Your task to perform on an android device: refresh tabs in the chrome app Image 0: 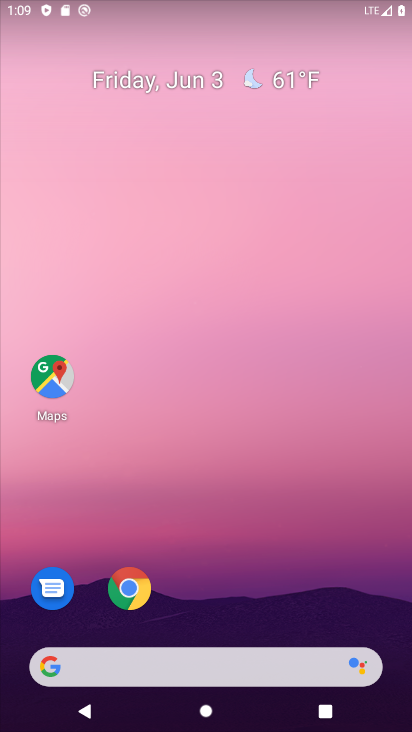
Step 0: click (318, 133)
Your task to perform on an android device: refresh tabs in the chrome app Image 1: 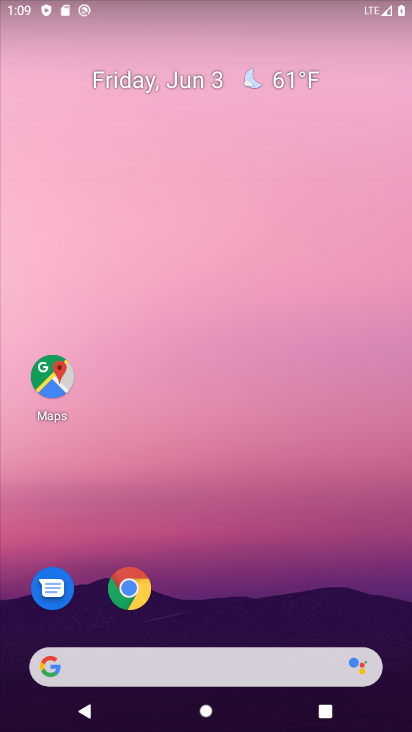
Step 1: drag from (241, 160) to (241, 105)
Your task to perform on an android device: refresh tabs in the chrome app Image 2: 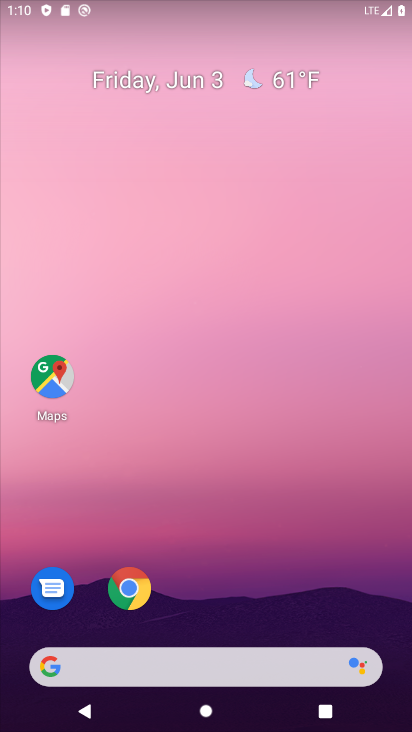
Step 2: drag from (198, 614) to (284, 115)
Your task to perform on an android device: refresh tabs in the chrome app Image 3: 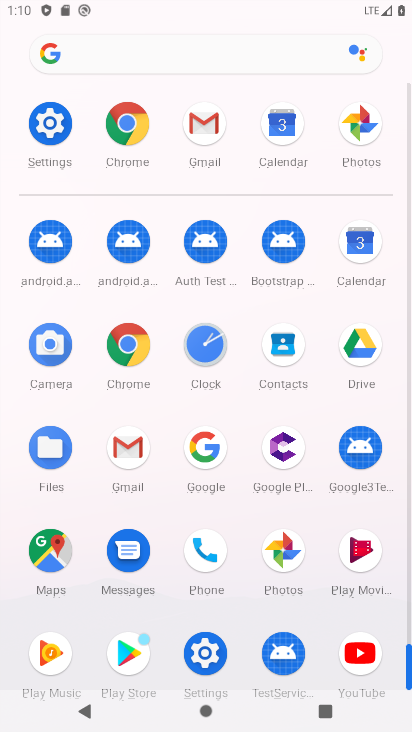
Step 3: click (136, 355)
Your task to perform on an android device: refresh tabs in the chrome app Image 4: 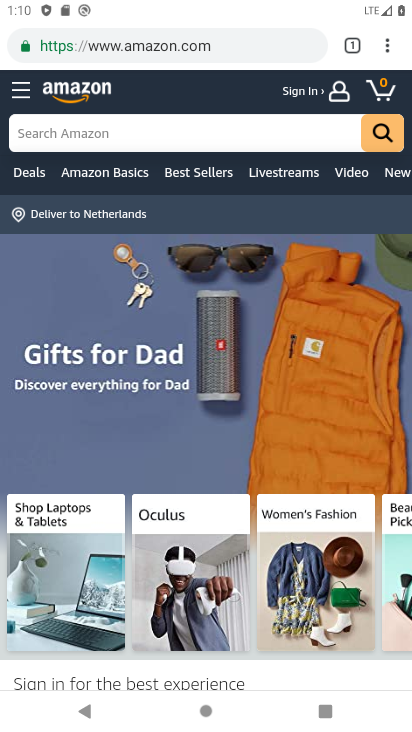
Step 4: click (385, 51)
Your task to perform on an android device: refresh tabs in the chrome app Image 5: 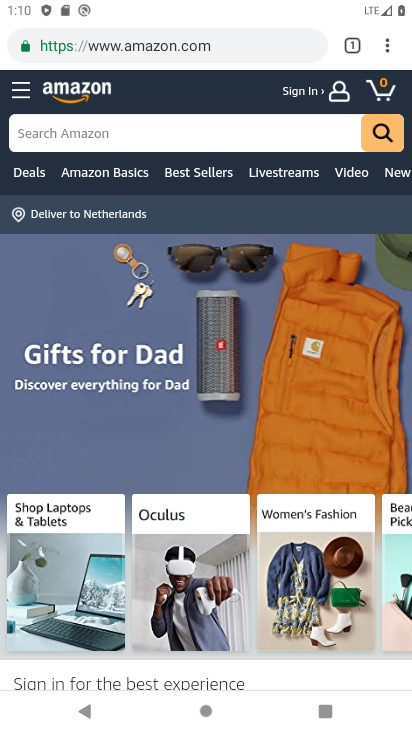
Step 5: click (389, 47)
Your task to perform on an android device: refresh tabs in the chrome app Image 6: 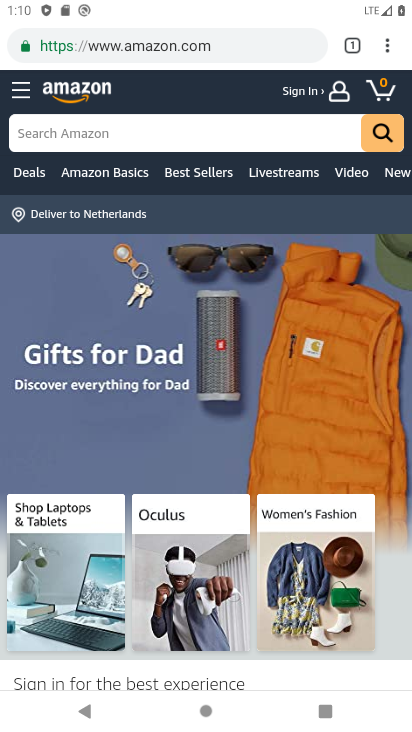
Step 6: click (388, 47)
Your task to perform on an android device: refresh tabs in the chrome app Image 7: 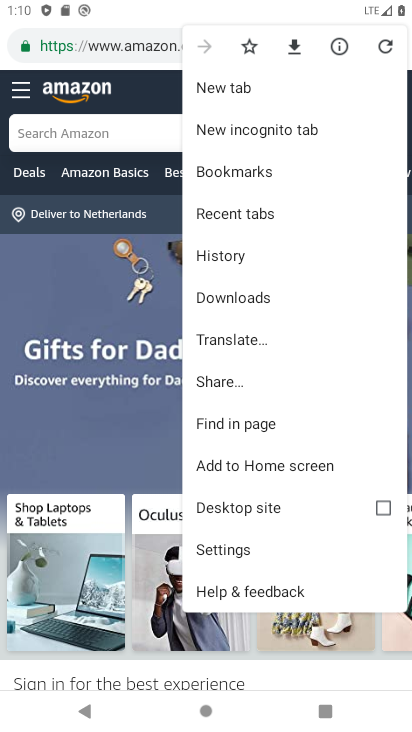
Step 7: click (385, 47)
Your task to perform on an android device: refresh tabs in the chrome app Image 8: 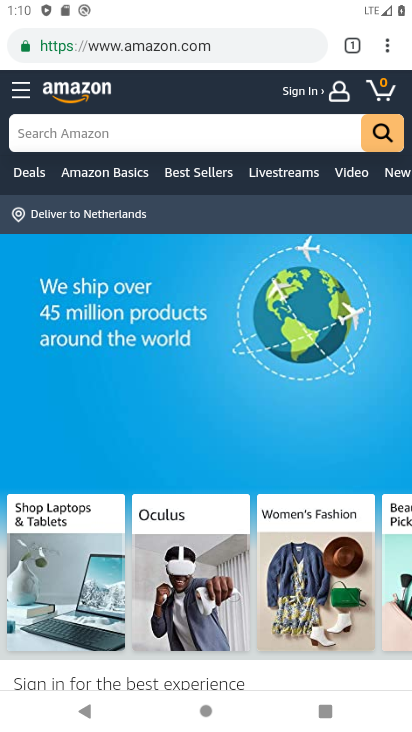
Step 8: task complete